Your task to perform on an android device: empty trash in google photos Image 0: 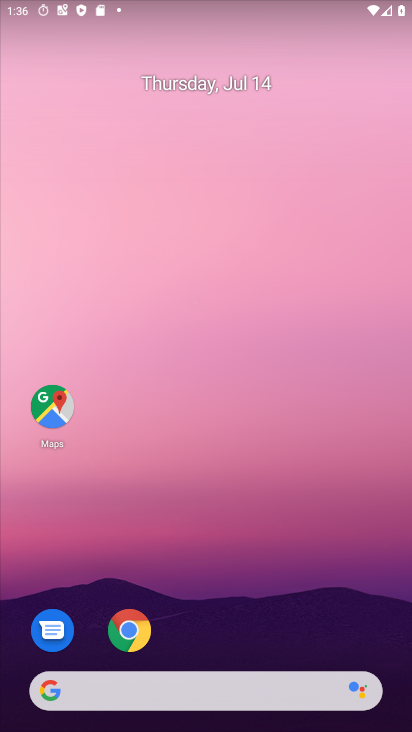
Step 0: drag from (187, 700) to (130, 0)
Your task to perform on an android device: empty trash in google photos Image 1: 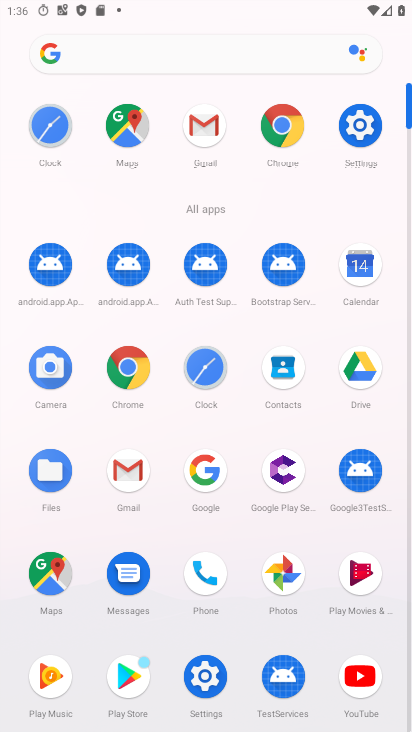
Step 1: click (284, 571)
Your task to perform on an android device: empty trash in google photos Image 2: 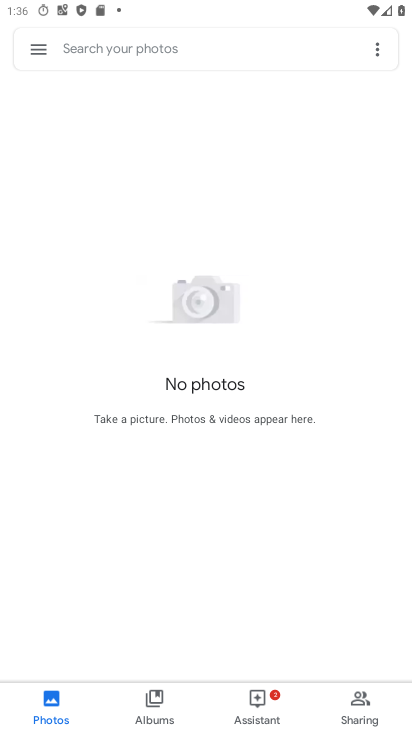
Step 2: click (30, 54)
Your task to perform on an android device: empty trash in google photos Image 3: 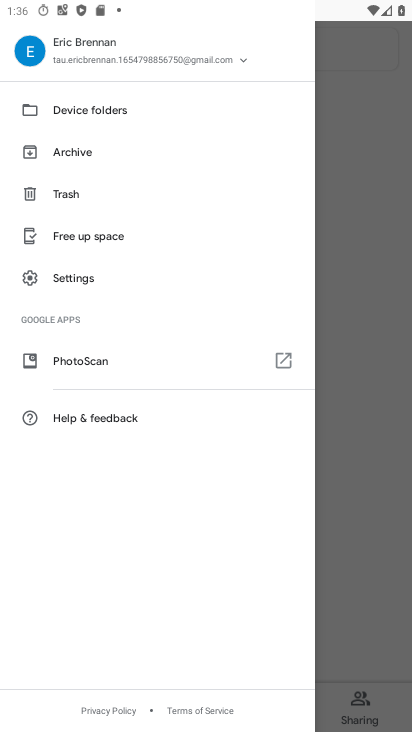
Step 3: click (71, 192)
Your task to perform on an android device: empty trash in google photos Image 4: 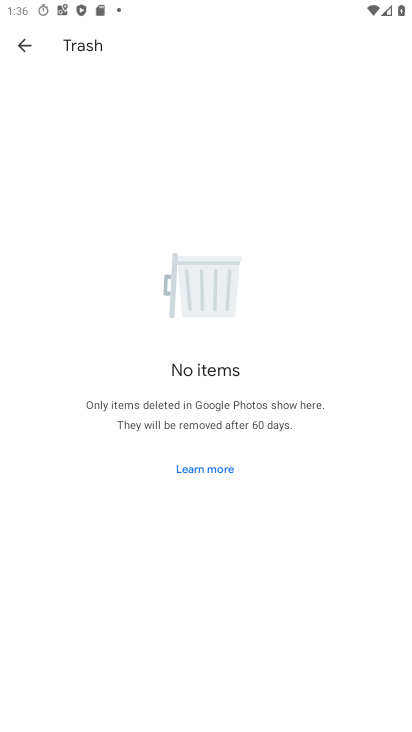
Step 4: task complete